Your task to perform on an android device: install app "Google Find My Device" Image 0: 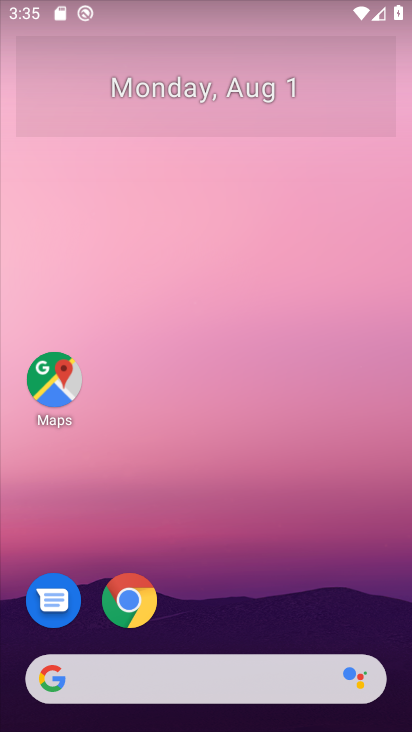
Step 0: drag from (273, 588) to (213, 69)
Your task to perform on an android device: install app "Google Find My Device" Image 1: 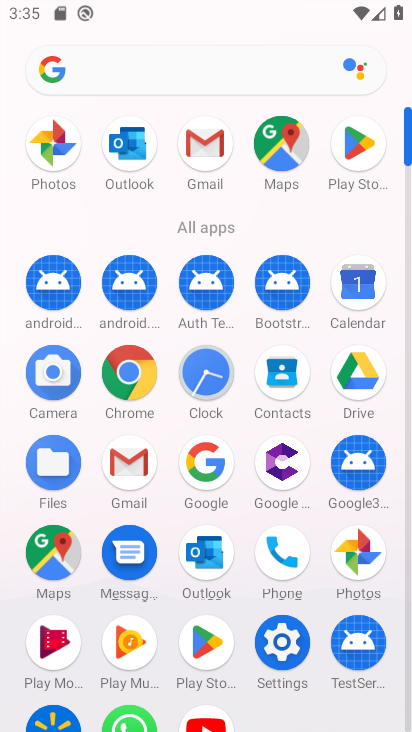
Step 1: click (352, 138)
Your task to perform on an android device: install app "Google Find My Device" Image 2: 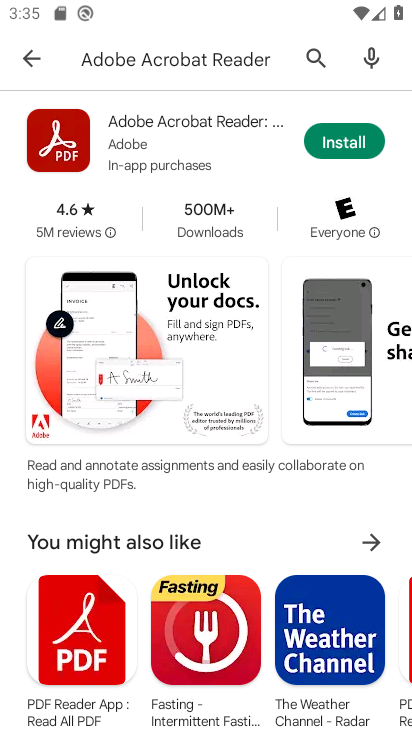
Step 2: click (193, 66)
Your task to perform on an android device: install app "Google Find My Device" Image 3: 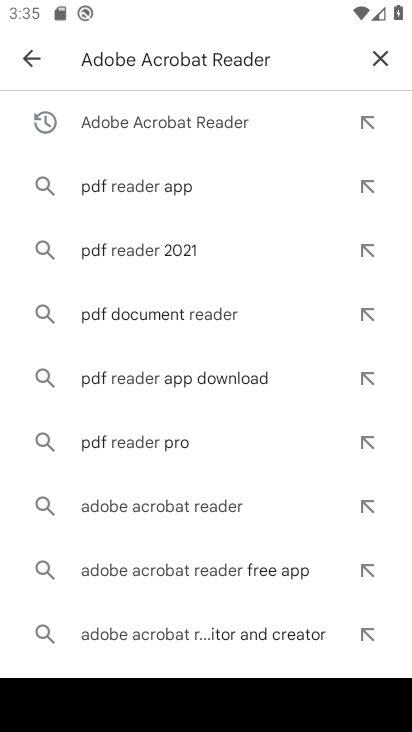
Step 3: click (383, 55)
Your task to perform on an android device: install app "Google Find My Device" Image 4: 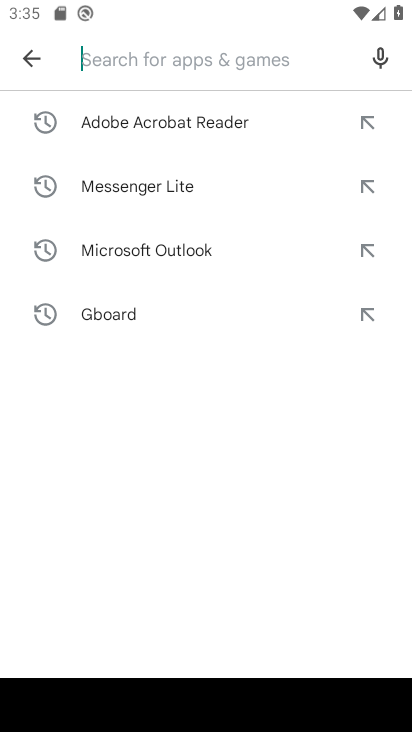
Step 4: type "Google Find My Device"
Your task to perform on an android device: install app "Google Find My Device" Image 5: 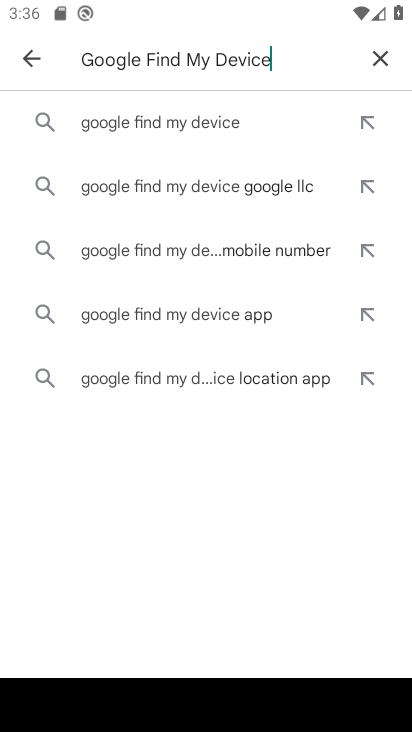
Step 5: press enter
Your task to perform on an android device: install app "Google Find My Device" Image 6: 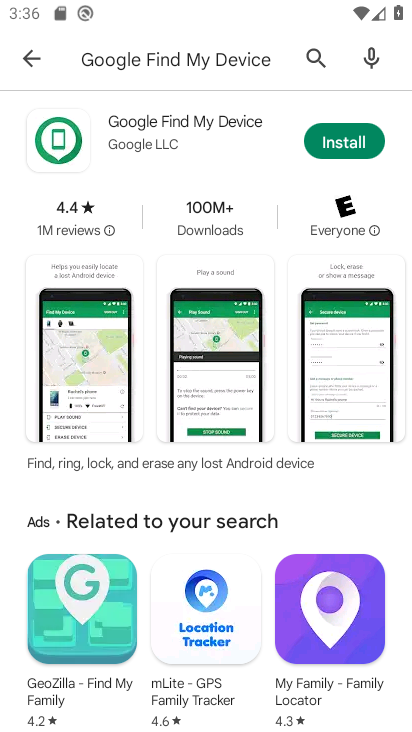
Step 6: click (337, 137)
Your task to perform on an android device: install app "Google Find My Device" Image 7: 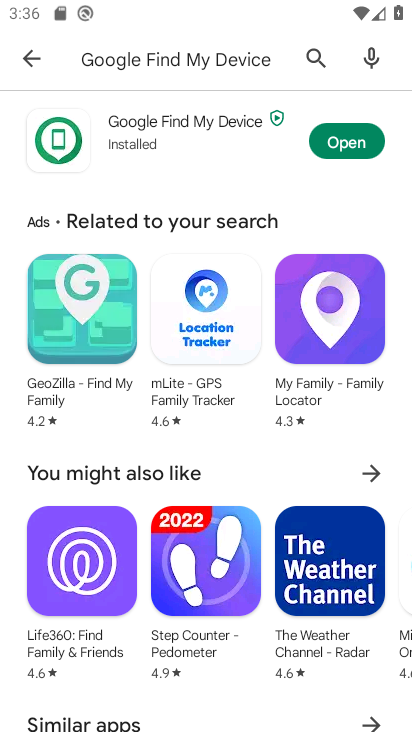
Step 7: task complete